Your task to perform on an android device: show emergency info Image 0: 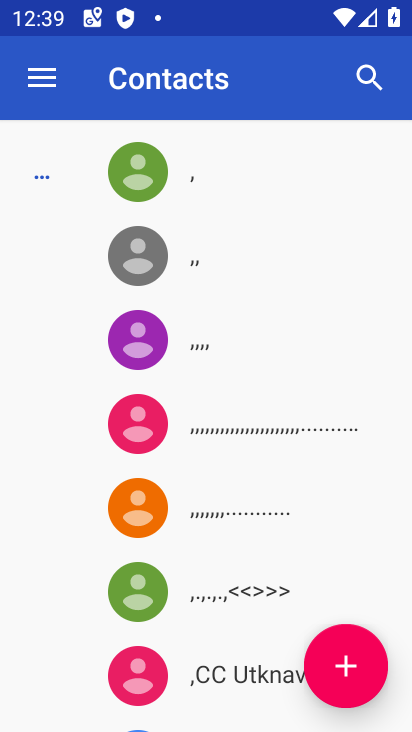
Step 0: press home button
Your task to perform on an android device: show emergency info Image 1: 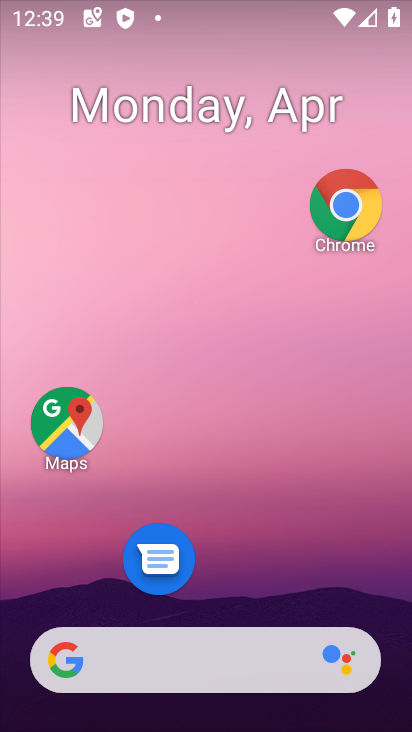
Step 1: drag from (268, 587) to (211, 138)
Your task to perform on an android device: show emergency info Image 2: 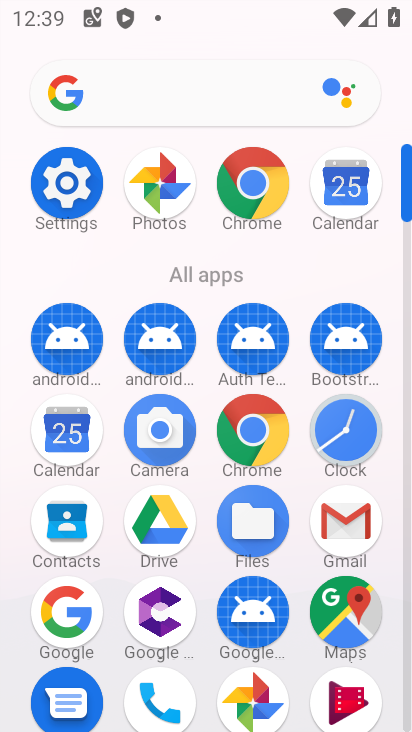
Step 2: click (85, 205)
Your task to perform on an android device: show emergency info Image 3: 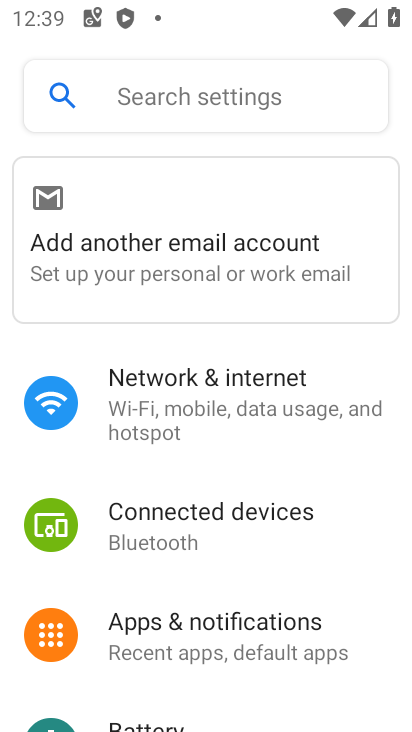
Step 3: drag from (150, 679) to (213, 200)
Your task to perform on an android device: show emergency info Image 4: 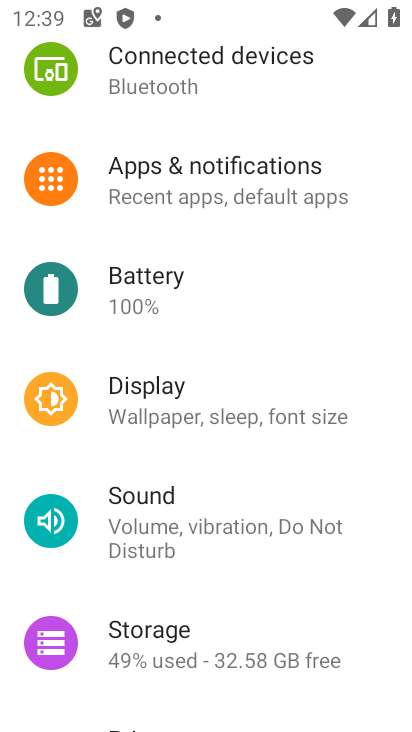
Step 4: drag from (192, 627) to (242, 104)
Your task to perform on an android device: show emergency info Image 5: 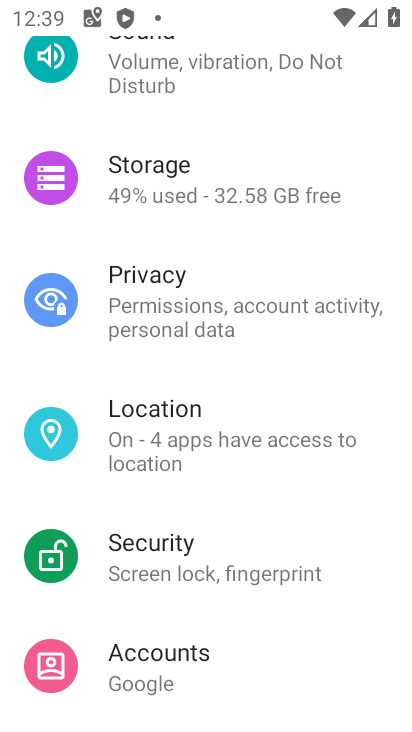
Step 5: drag from (181, 681) to (218, 242)
Your task to perform on an android device: show emergency info Image 6: 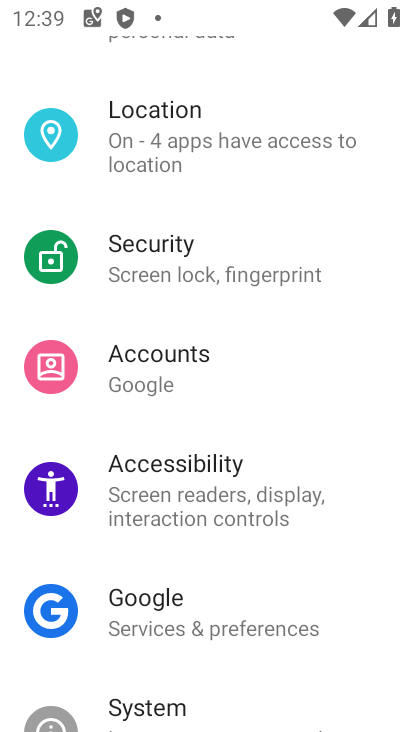
Step 6: drag from (207, 687) to (220, 264)
Your task to perform on an android device: show emergency info Image 7: 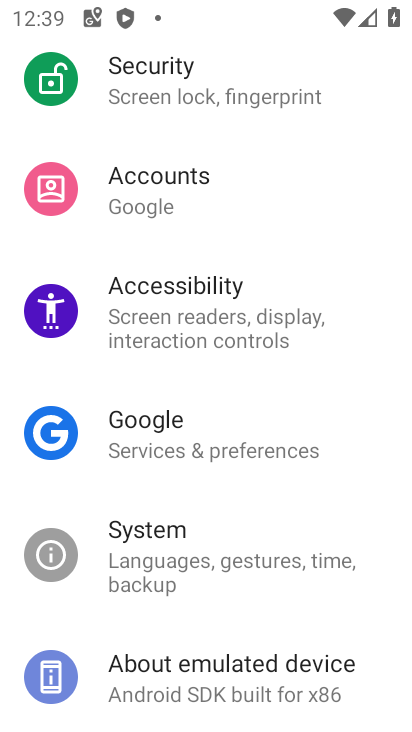
Step 7: click (202, 687)
Your task to perform on an android device: show emergency info Image 8: 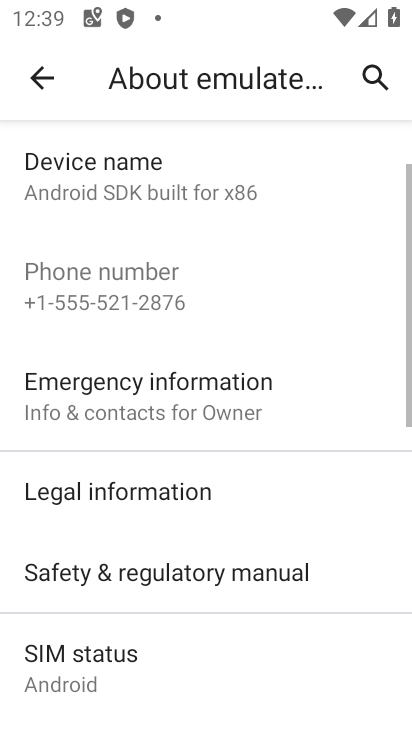
Step 8: click (131, 422)
Your task to perform on an android device: show emergency info Image 9: 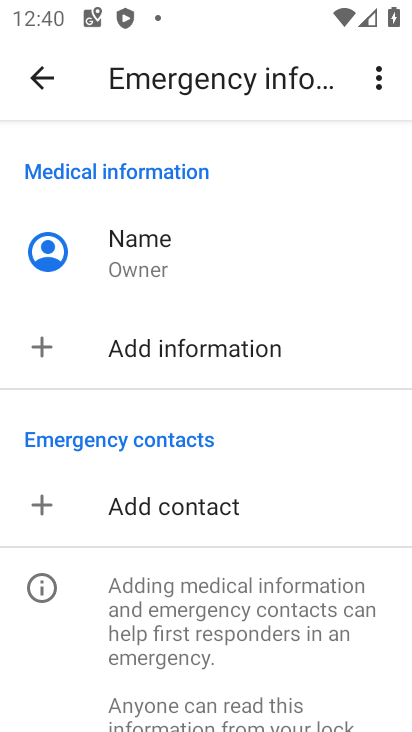
Step 9: task complete